Your task to perform on an android device: delete browsing data in the chrome app Image 0: 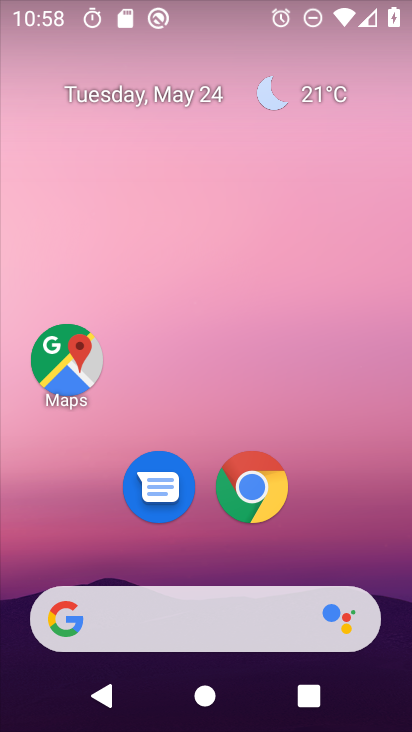
Step 0: click (257, 492)
Your task to perform on an android device: delete browsing data in the chrome app Image 1: 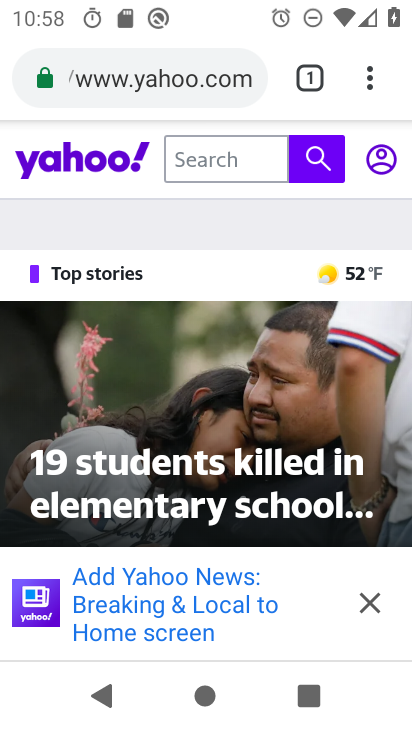
Step 1: click (371, 82)
Your task to perform on an android device: delete browsing data in the chrome app Image 2: 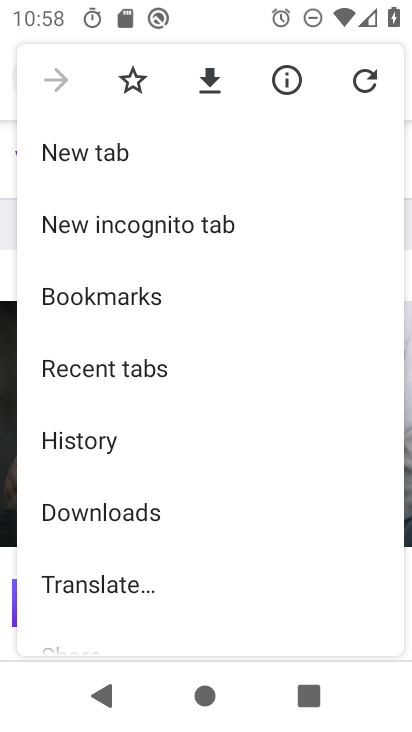
Step 2: drag from (191, 470) to (189, 69)
Your task to perform on an android device: delete browsing data in the chrome app Image 3: 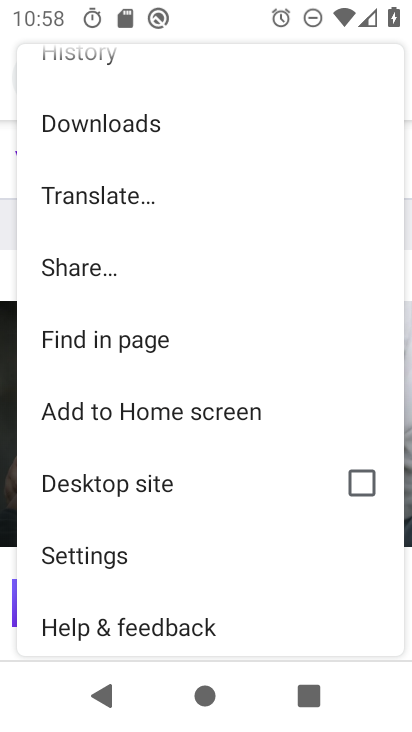
Step 3: click (93, 557)
Your task to perform on an android device: delete browsing data in the chrome app Image 4: 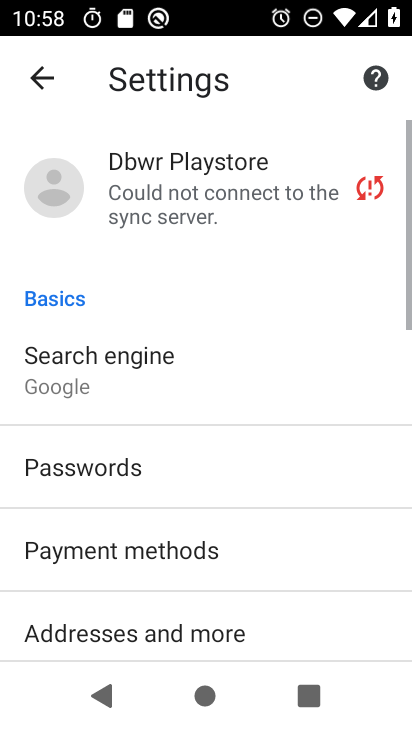
Step 4: drag from (152, 556) to (156, 93)
Your task to perform on an android device: delete browsing data in the chrome app Image 5: 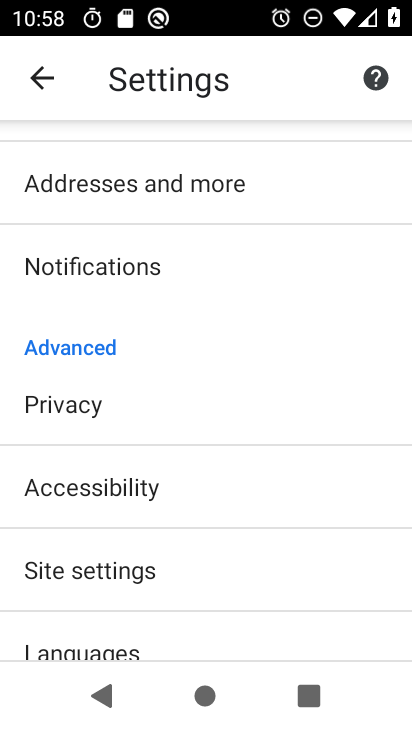
Step 5: click (73, 403)
Your task to perform on an android device: delete browsing data in the chrome app Image 6: 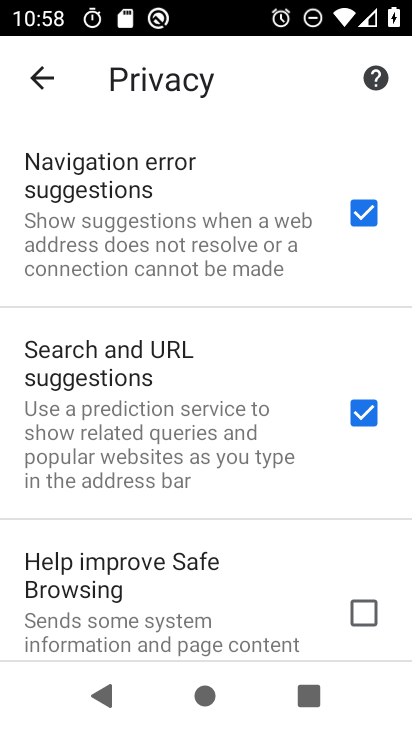
Step 6: drag from (125, 485) to (145, 25)
Your task to perform on an android device: delete browsing data in the chrome app Image 7: 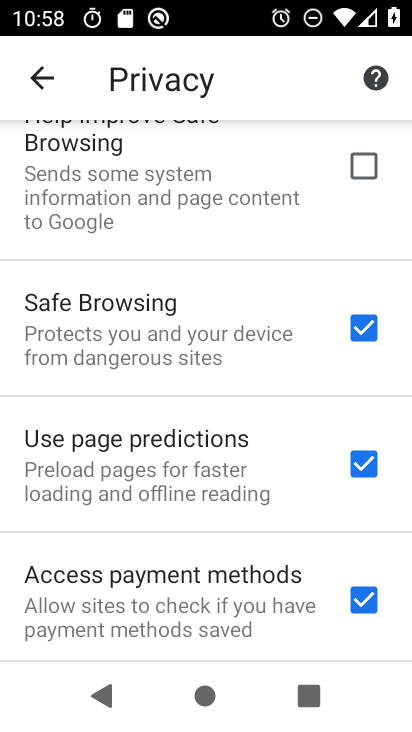
Step 7: drag from (134, 485) to (142, 35)
Your task to perform on an android device: delete browsing data in the chrome app Image 8: 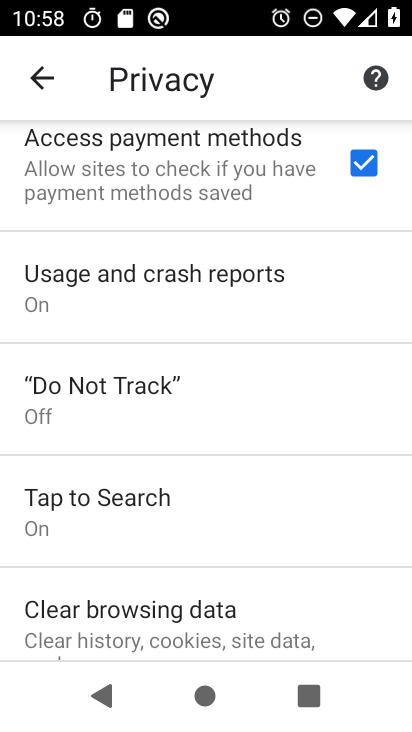
Step 8: drag from (144, 535) to (151, 198)
Your task to perform on an android device: delete browsing data in the chrome app Image 9: 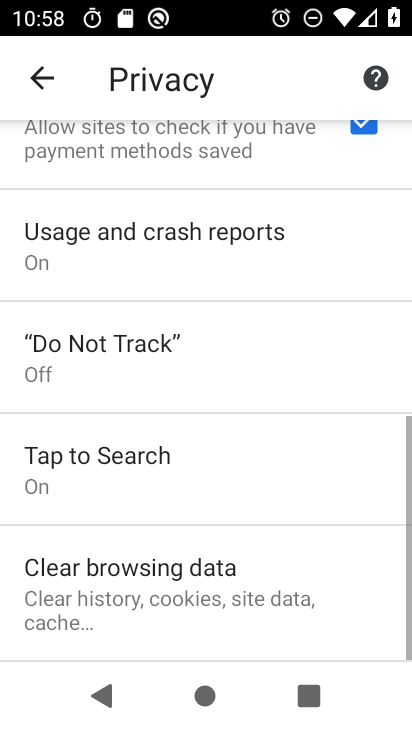
Step 9: click (124, 574)
Your task to perform on an android device: delete browsing data in the chrome app Image 10: 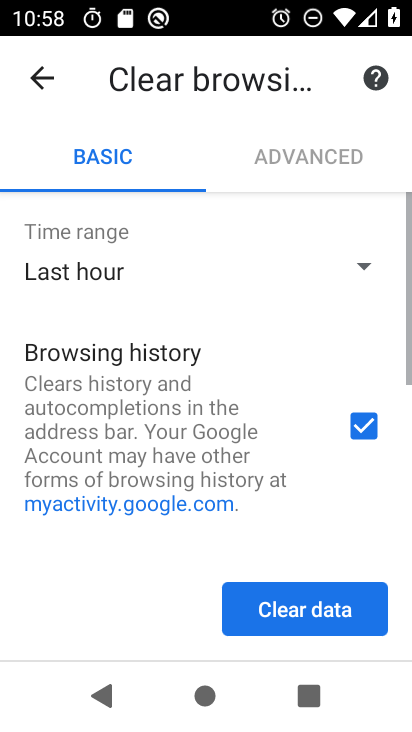
Step 10: drag from (138, 443) to (156, 135)
Your task to perform on an android device: delete browsing data in the chrome app Image 11: 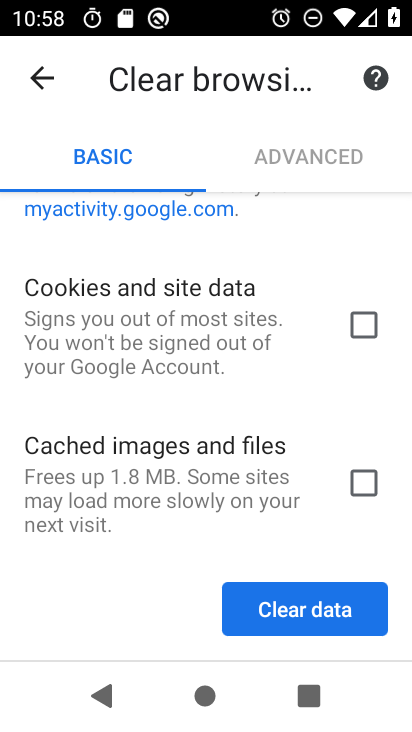
Step 11: click (292, 603)
Your task to perform on an android device: delete browsing data in the chrome app Image 12: 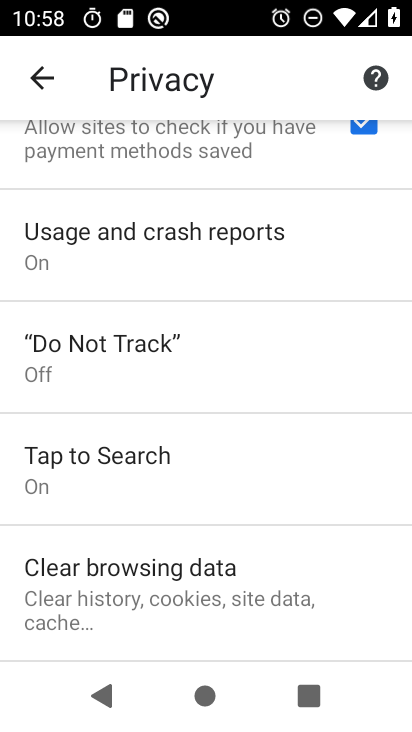
Step 12: task complete